Your task to perform on an android device: change notifications settings Image 0: 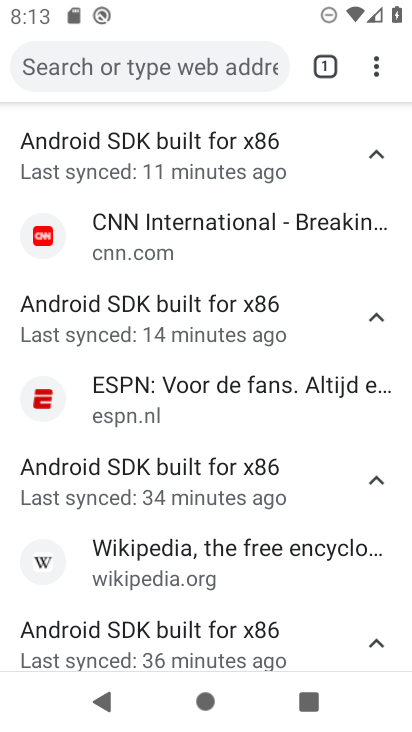
Step 0: press home button
Your task to perform on an android device: change notifications settings Image 1: 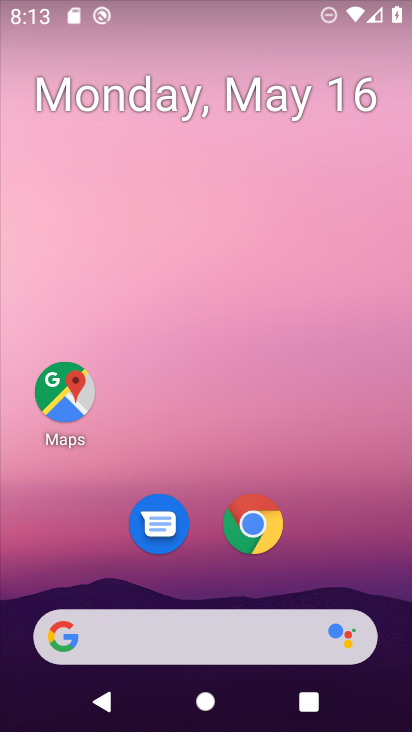
Step 1: drag from (298, 532) to (249, 78)
Your task to perform on an android device: change notifications settings Image 2: 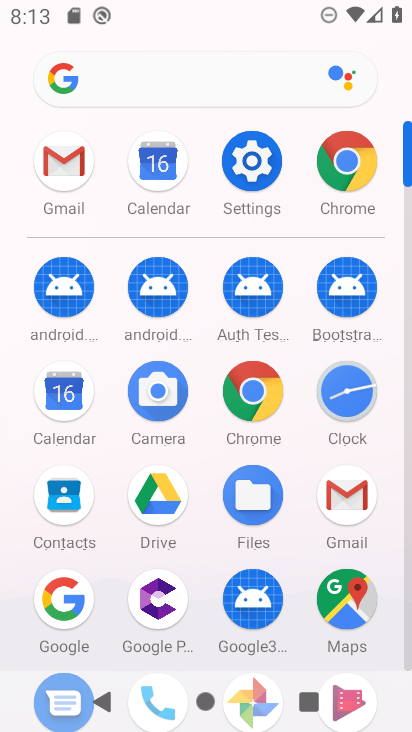
Step 2: click (252, 163)
Your task to perform on an android device: change notifications settings Image 3: 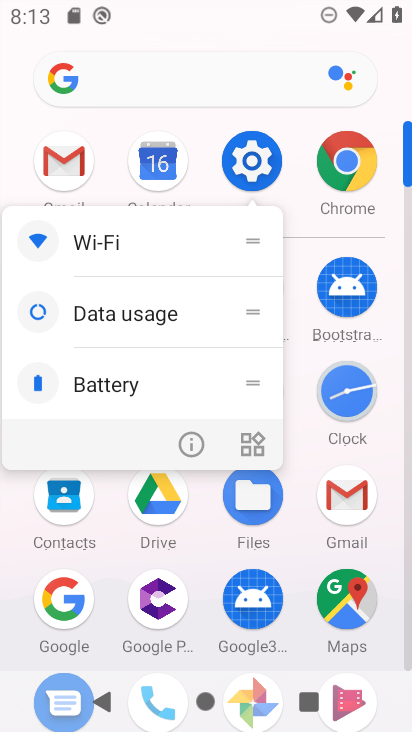
Step 3: click (250, 147)
Your task to perform on an android device: change notifications settings Image 4: 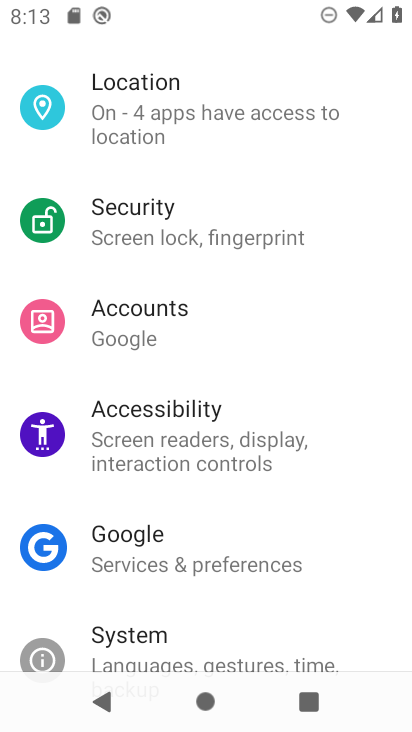
Step 4: drag from (249, 162) to (180, 668)
Your task to perform on an android device: change notifications settings Image 5: 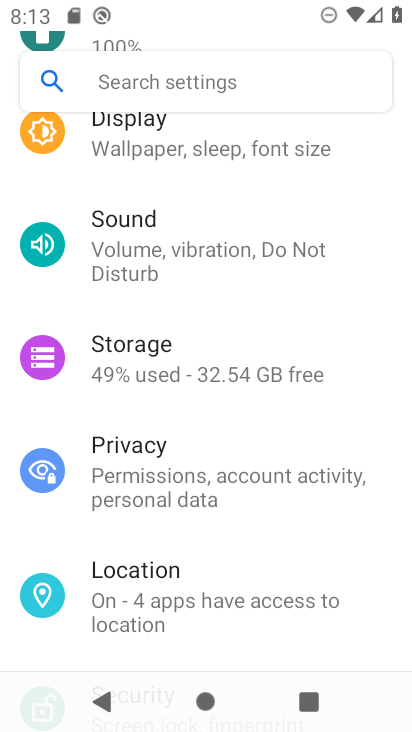
Step 5: drag from (198, 305) to (182, 695)
Your task to perform on an android device: change notifications settings Image 6: 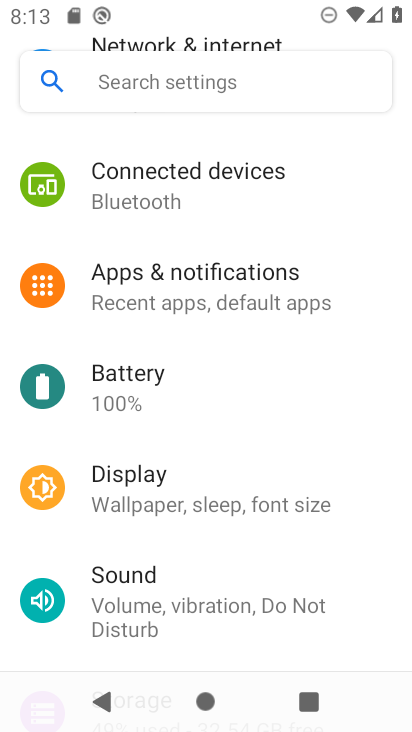
Step 6: click (242, 277)
Your task to perform on an android device: change notifications settings Image 7: 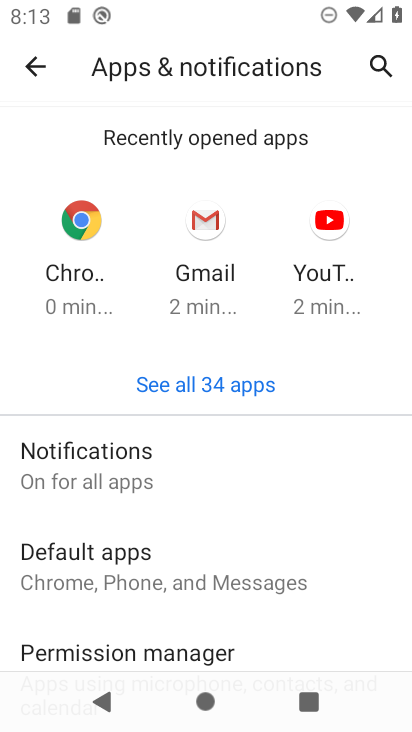
Step 7: click (141, 465)
Your task to perform on an android device: change notifications settings Image 8: 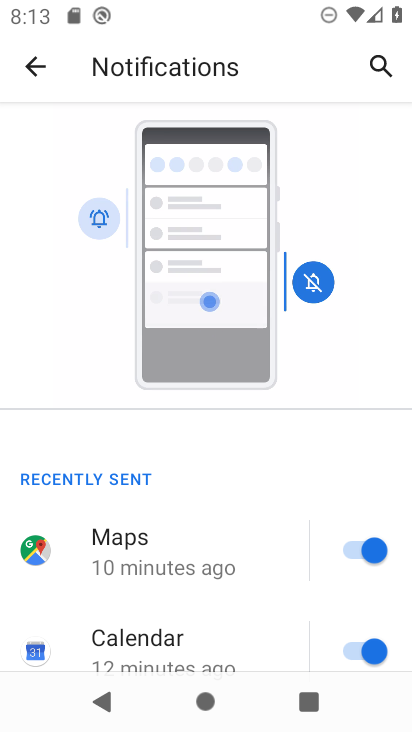
Step 8: drag from (244, 609) to (261, 227)
Your task to perform on an android device: change notifications settings Image 9: 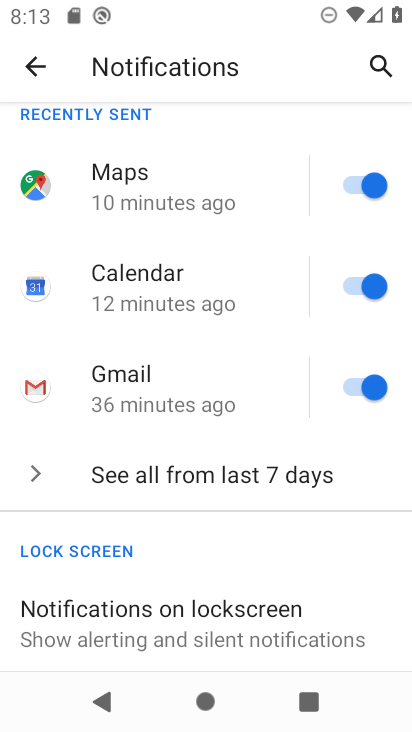
Step 9: click (234, 466)
Your task to perform on an android device: change notifications settings Image 10: 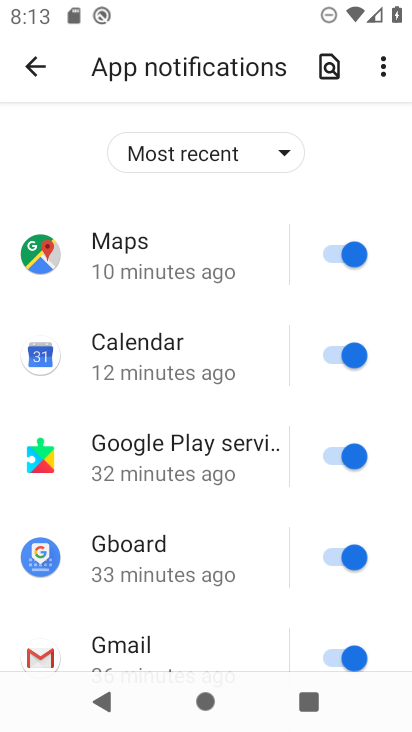
Step 10: drag from (234, 604) to (234, 252)
Your task to perform on an android device: change notifications settings Image 11: 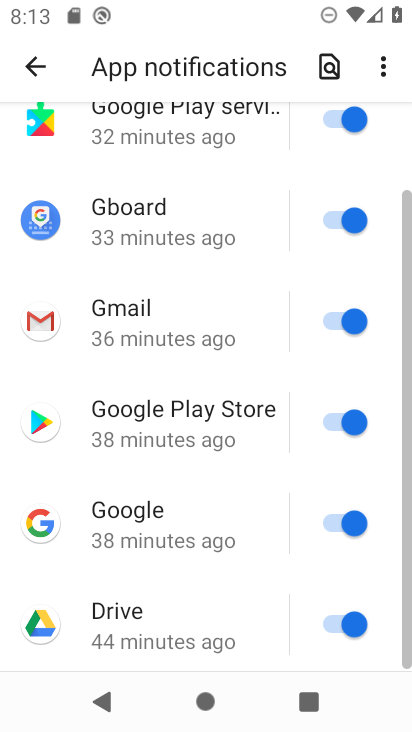
Step 11: drag from (174, 594) to (173, 280)
Your task to perform on an android device: change notifications settings Image 12: 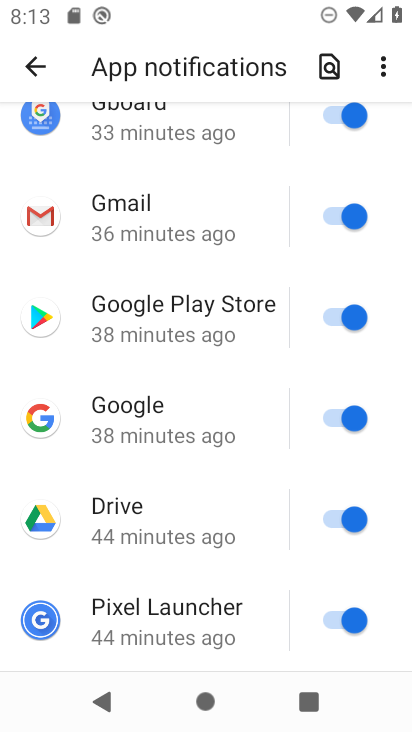
Step 12: click (329, 617)
Your task to perform on an android device: change notifications settings Image 13: 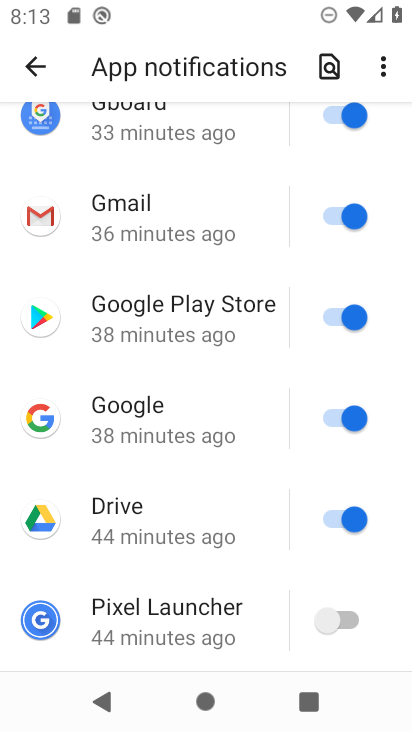
Step 13: click (329, 512)
Your task to perform on an android device: change notifications settings Image 14: 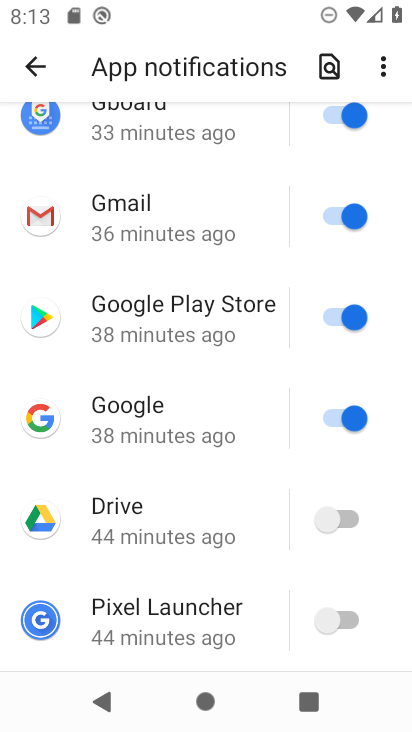
Step 14: click (329, 405)
Your task to perform on an android device: change notifications settings Image 15: 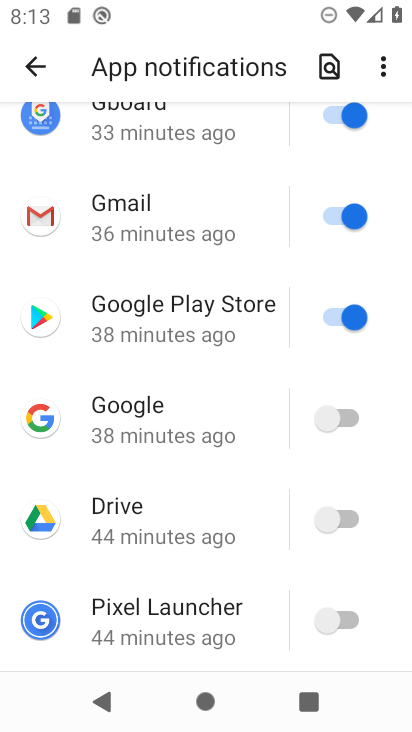
Step 15: click (329, 292)
Your task to perform on an android device: change notifications settings Image 16: 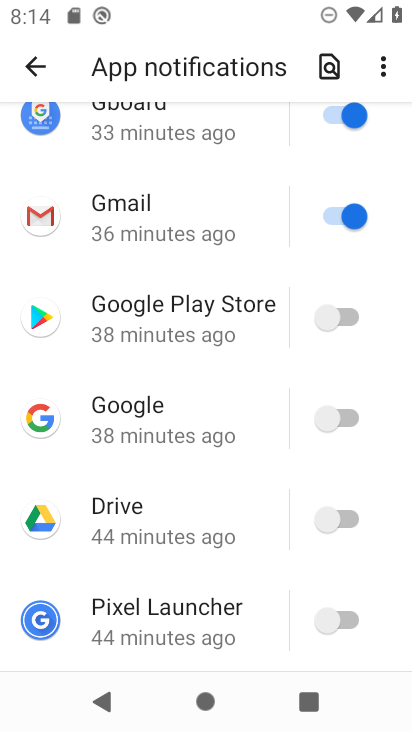
Step 16: click (320, 208)
Your task to perform on an android device: change notifications settings Image 17: 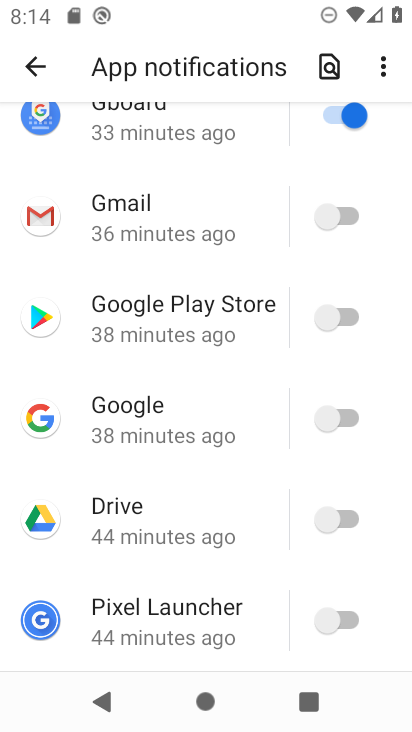
Step 17: click (329, 115)
Your task to perform on an android device: change notifications settings Image 18: 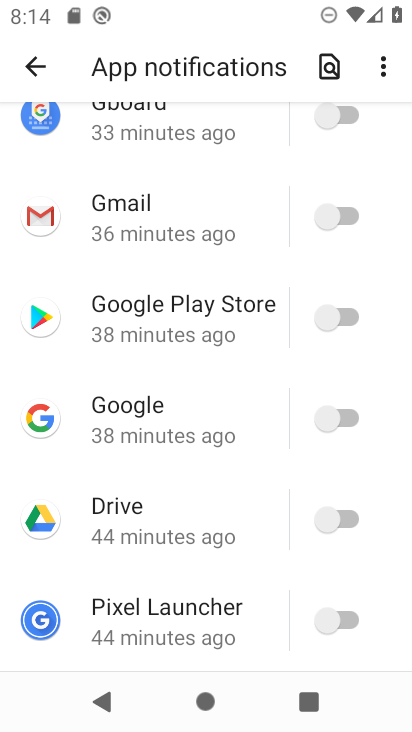
Step 18: drag from (262, 210) to (218, 731)
Your task to perform on an android device: change notifications settings Image 19: 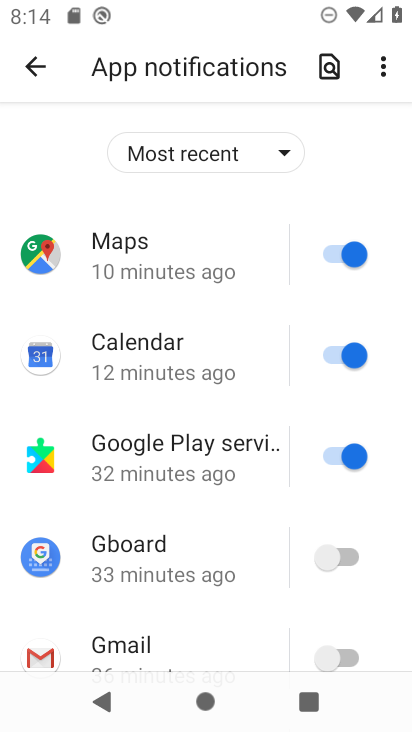
Step 19: click (352, 443)
Your task to perform on an android device: change notifications settings Image 20: 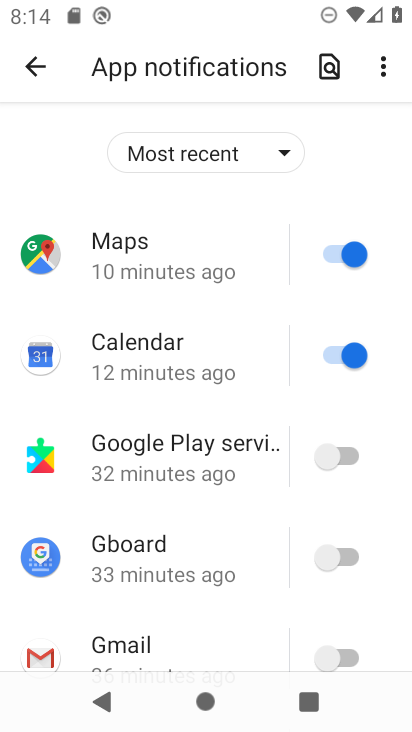
Step 20: click (347, 340)
Your task to perform on an android device: change notifications settings Image 21: 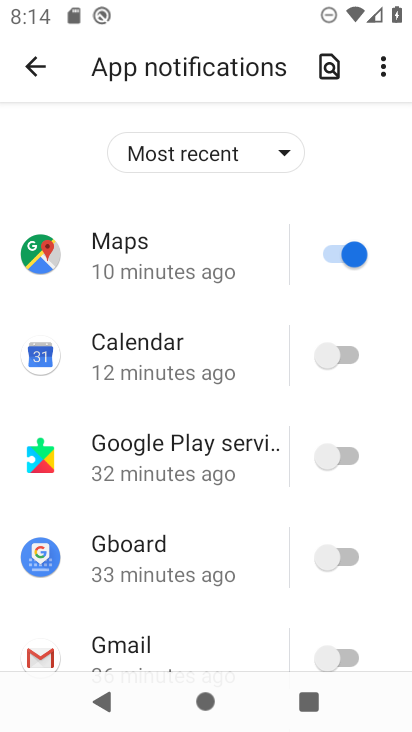
Step 21: click (349, 247)
Your task to perform on an android device: change notifications settings Image 22: 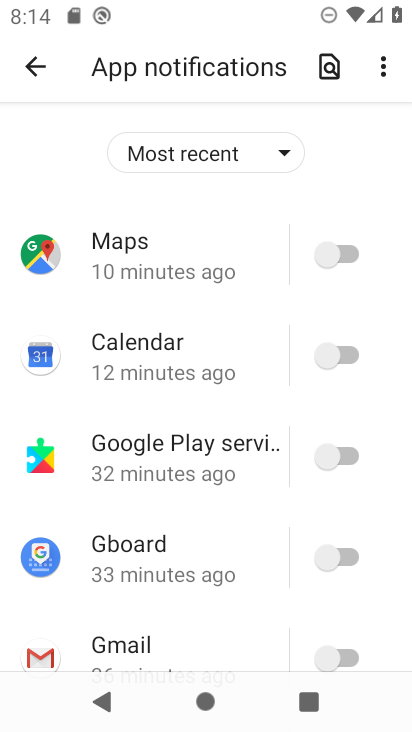
Step 22: task complete